Your task to perform on an android device: turn on location history Image 0: 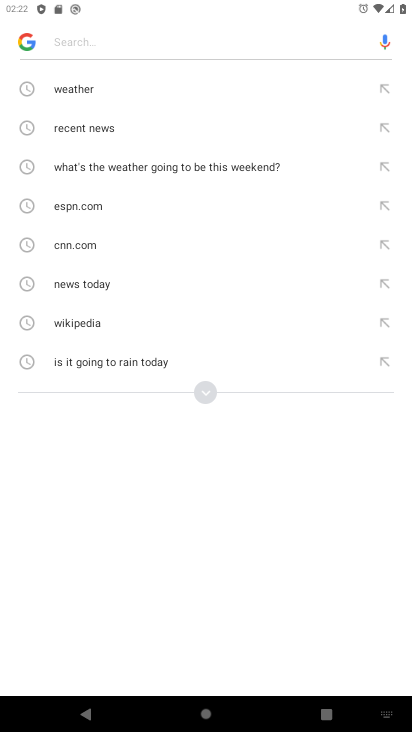
Step 0: press home button
Your task to perform on an android device: turn on location history Image 1: 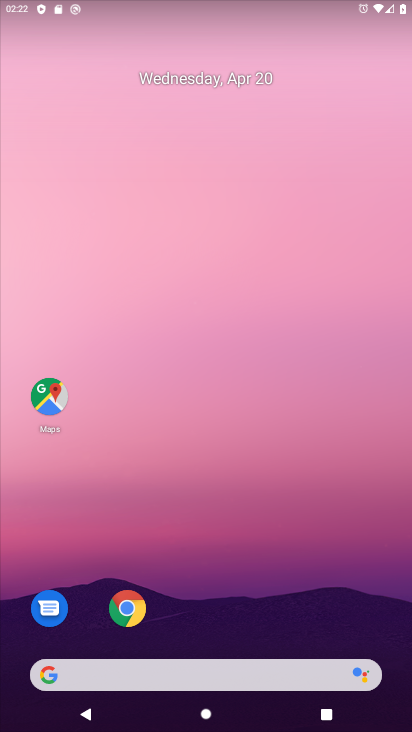
Step 1: drag from (210, 607) to (217, 96)
Your task to perform on an android device: turn on location history Image 2: 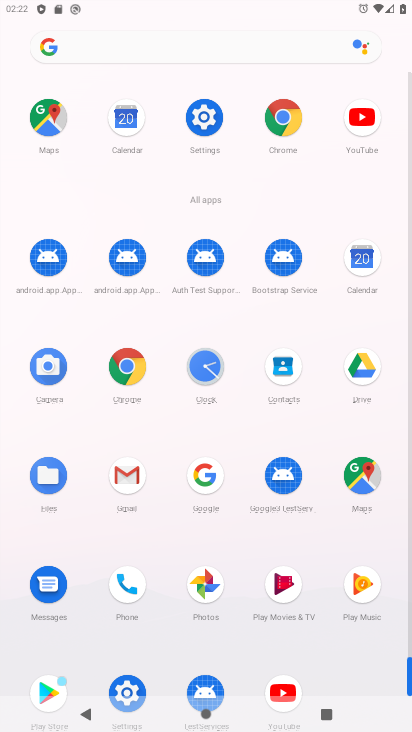
Step 2: click (209, 126)
Your task to perform on an android device: turn on location history Image 3: 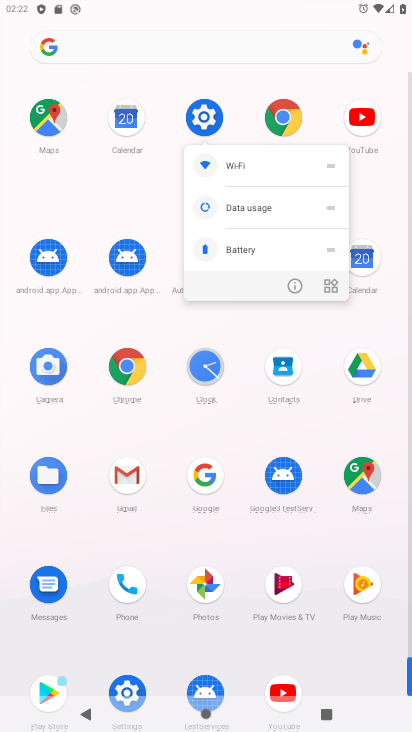
Step 3: click (209, 125)
Your task to perform on an android device: turn on location history Image 4: 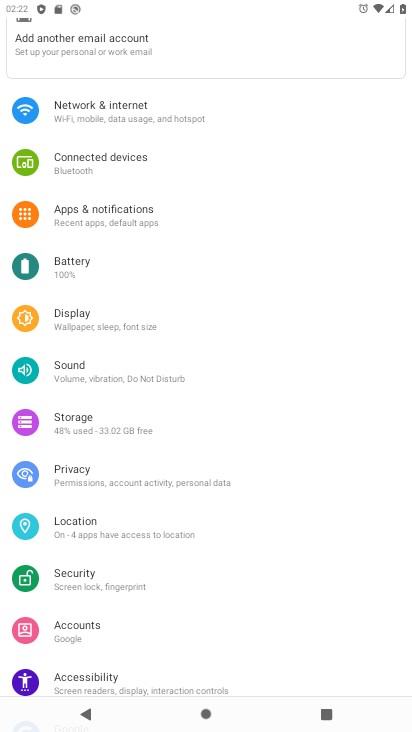
Step 4: click (86, 514)
Your task to perform on an android device: turn on location history Image 5: 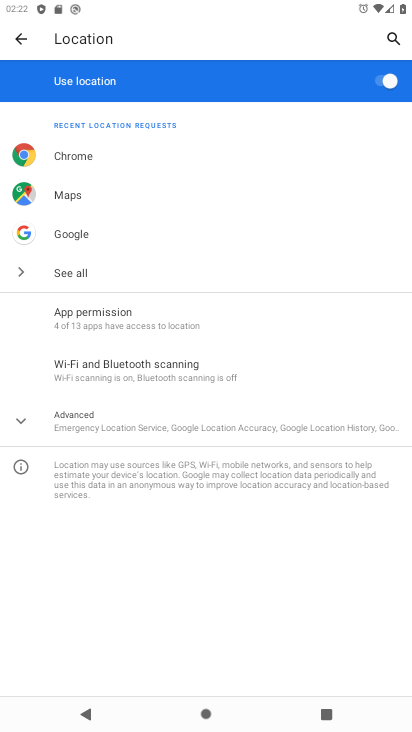
Step 5: click (143, 430)
Your task to perform on an android device: turn on location history Image 6: 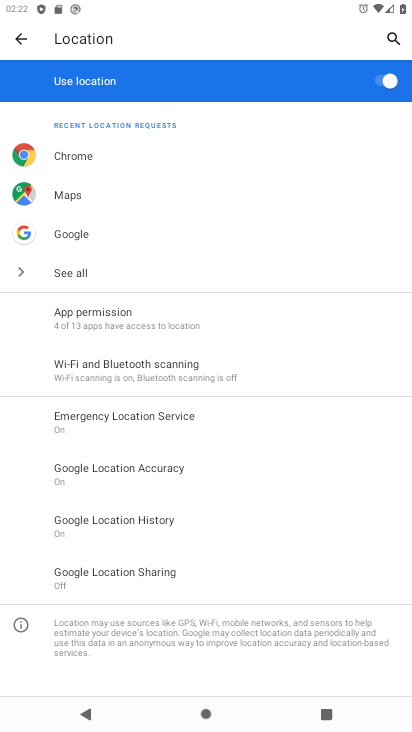
Step 6: click (89, 527)
Your task to perform on an android device: turn on location history Image 7: 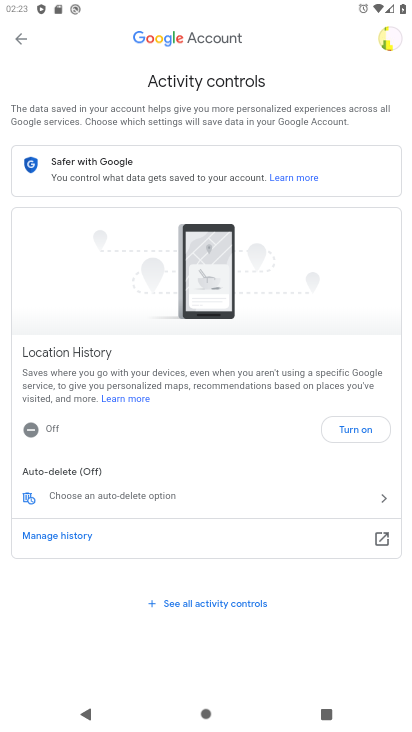
Step 7: click (354, 428)
Your task to perform on an android device: turn on location history Image 8: 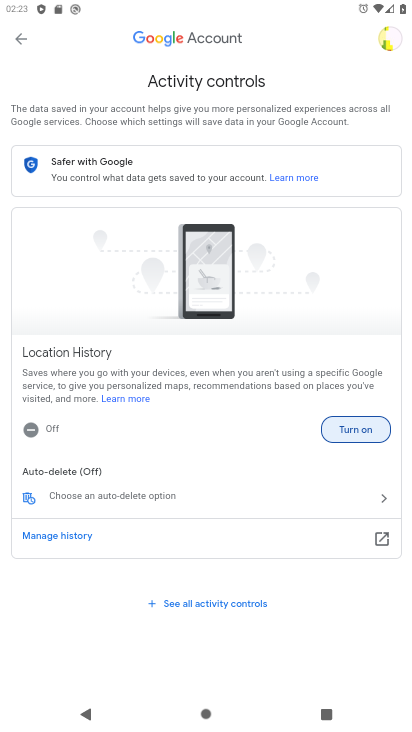
Step 8: click (354, 427)
Your task to perform on an android device: turn on location history Image 9: 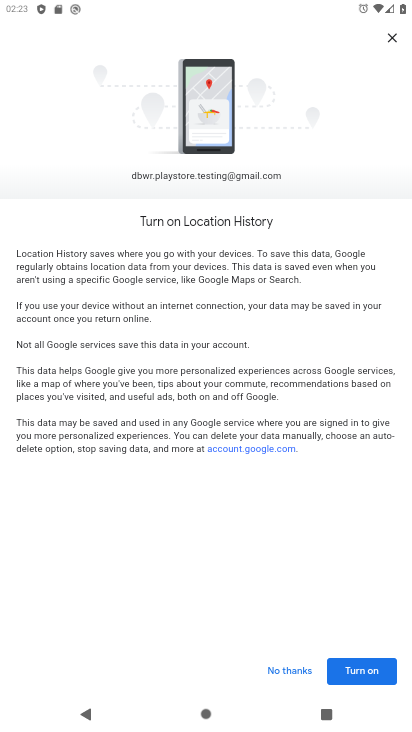
Step 9: click (368, 665)
Your task to perform on an android device: turn on location history Image 10: 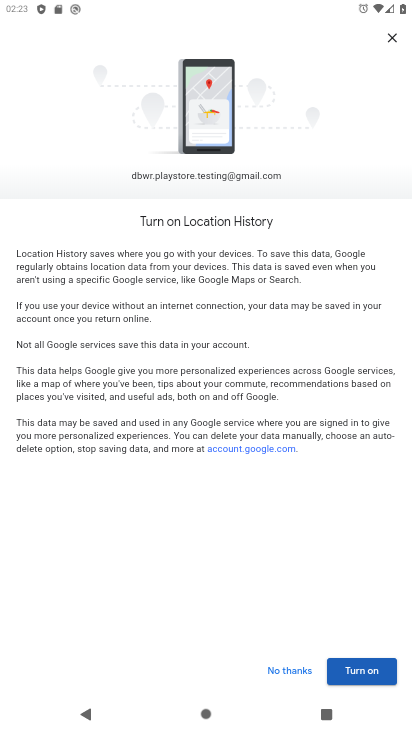
Step 10: click (370, 665)
Your task to perform on an android device: turn on location history Image 11: 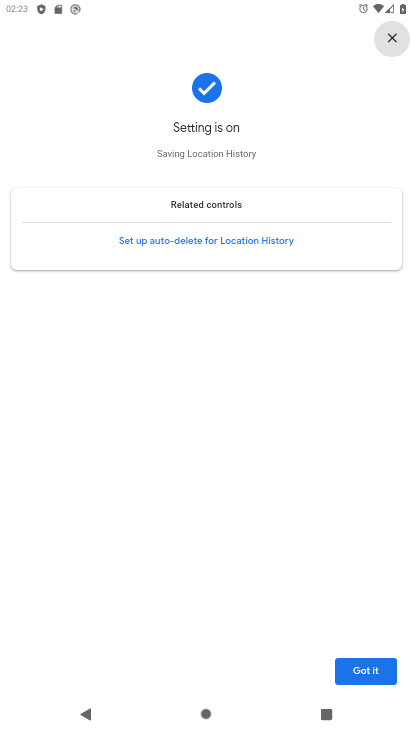
Step 11: click (372, 664)
Your task to perform on an android device: turn on location history Image 12: 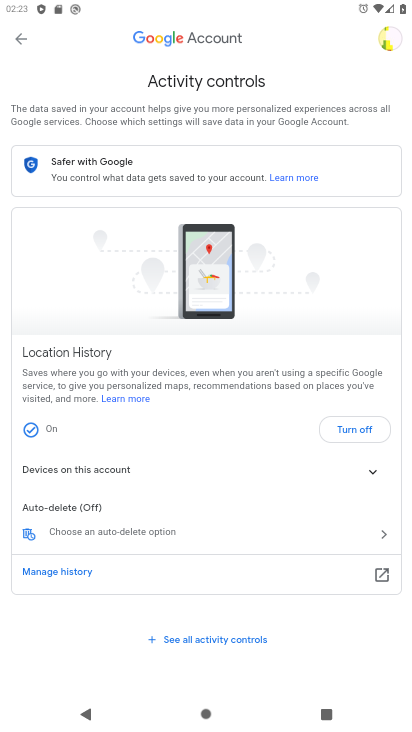
Step 12: task complete